Your task to perform on an android device: turn notification dots off Image 0: 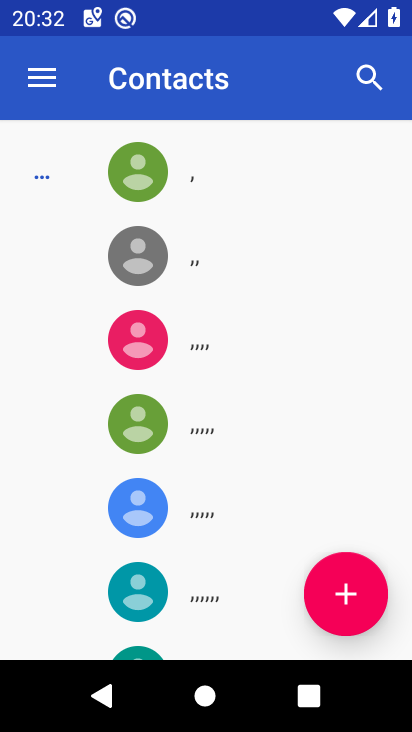
Step 0: press home button
Your task to perform on an android device: turn notification dots off Image 1: 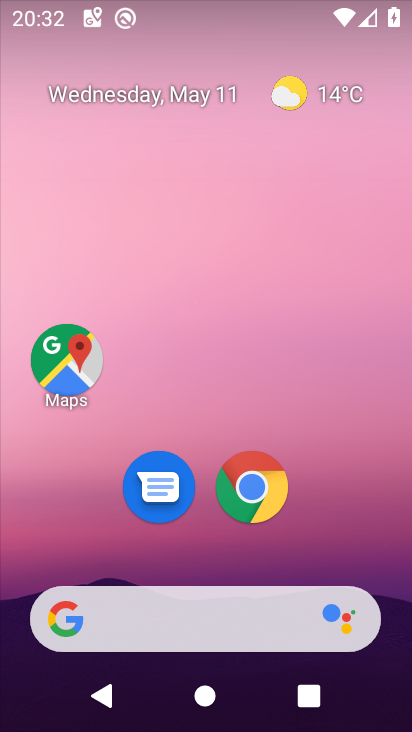
Step 1: drag from (209, 588) to (271, 209)
Your task to perform on an android device: turn notification dots off Image 2: 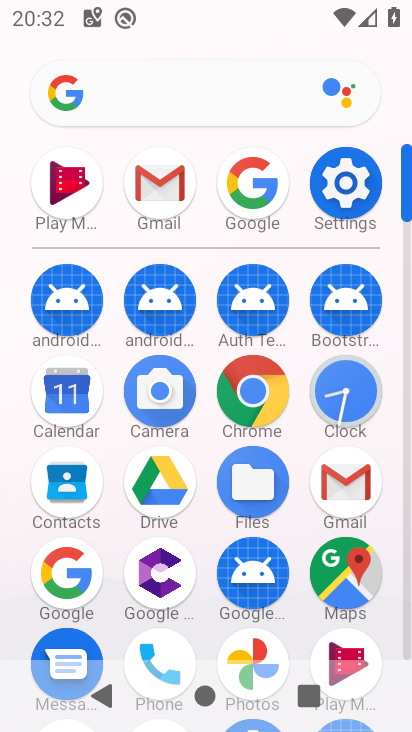
Step 2: click (358, 182)
Your task to perform on an android device: turn notification dots off Image 3: 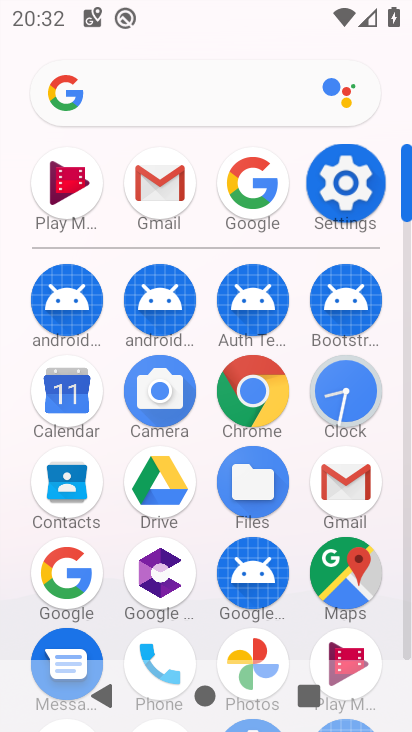
Step 3: click (349, 181)
Your task to perform on an android device: turn notification dots off Image 4: 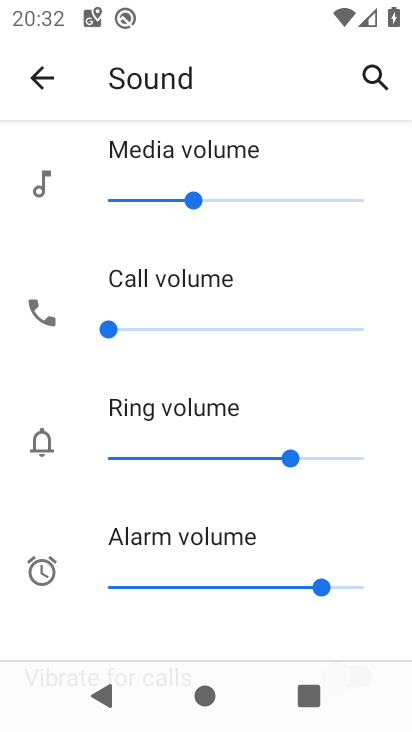
Step 4: press back button
Your task to perform on an android device: turn notification dots off Image 5: 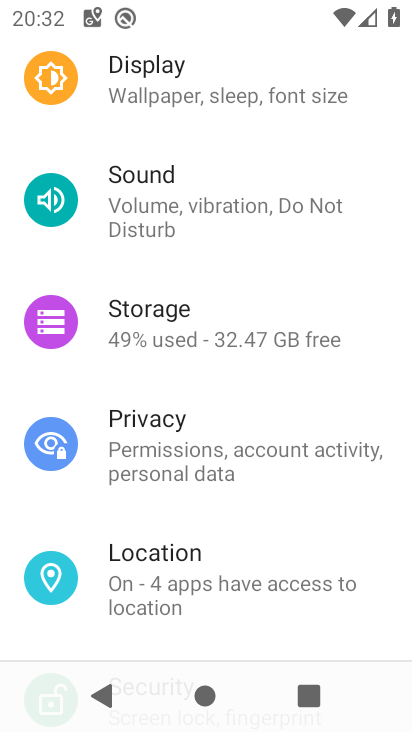
Step 5: drag from (224, 85) to (262, 531)
Your task to perform on an android device: turn notification dots off Image 6: 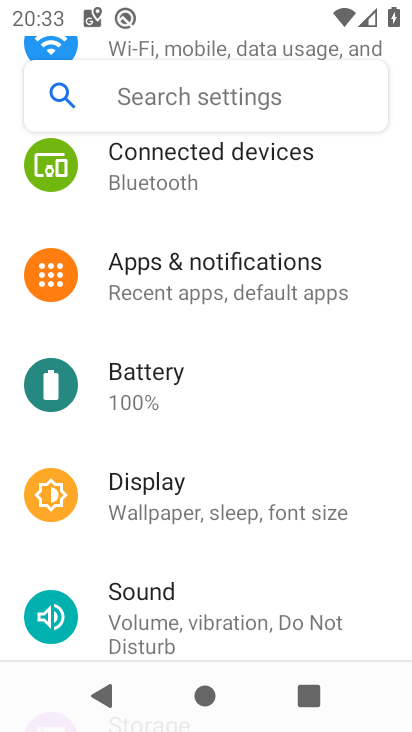
Step 6: click (241, 269)
Your task to perform on an android device: turn notification dots off Image 7: 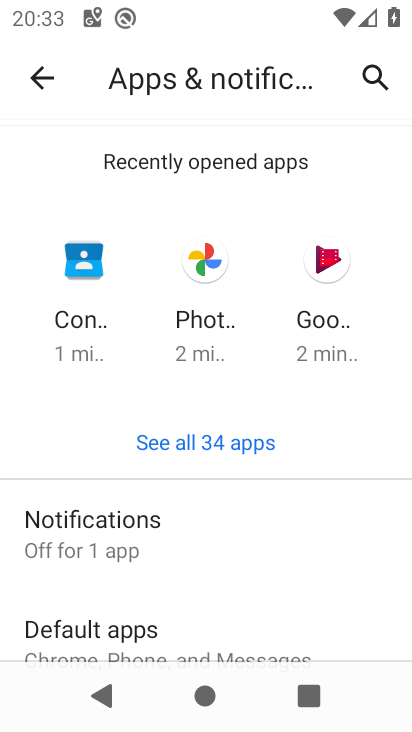
Step 7: click (111, 529)
Your task to perform on an android device: turn notification dots off Image 8: 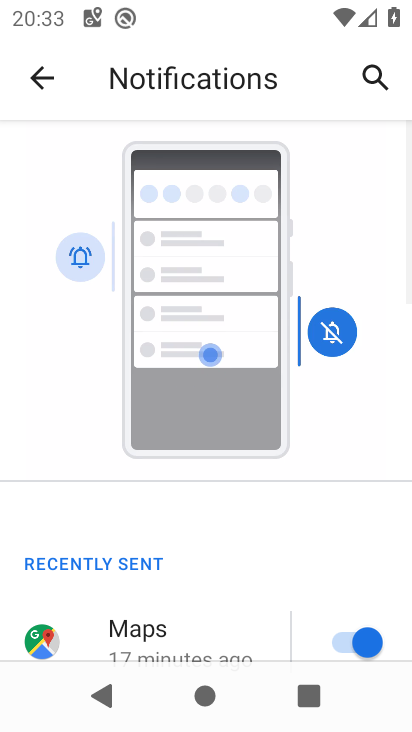
Step 8: drag from (271, 580) to (353, 261)
Your task to perform on an android device: turn notification dots off Image 9: 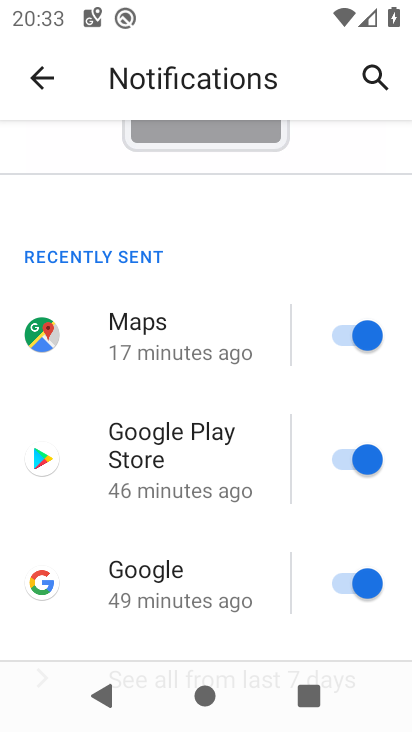
Step 9: drag from (306, 613) to (320, 165)
Your task to perform on an android device: turn notification dots off Image 10: 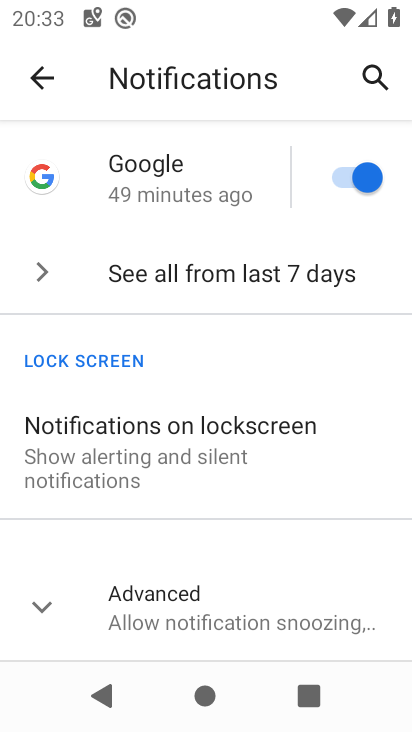
Step 10: click (192, 607)
Your task to perform on an android device: turn notification dots off Image 11: 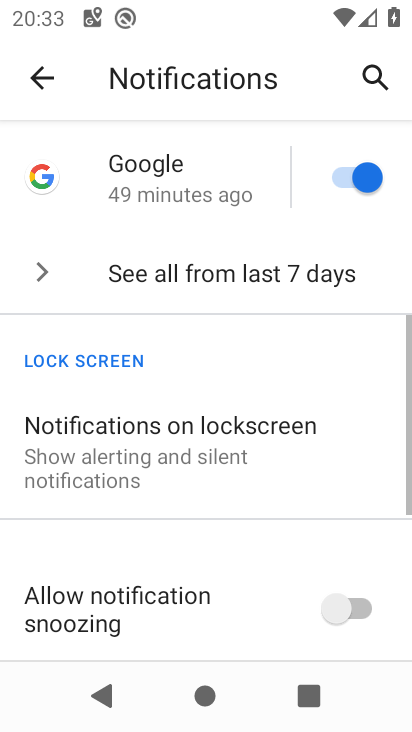
Step 11: click (119, 597)
Your task to perform on an android device: turn notification dots off Image 12: 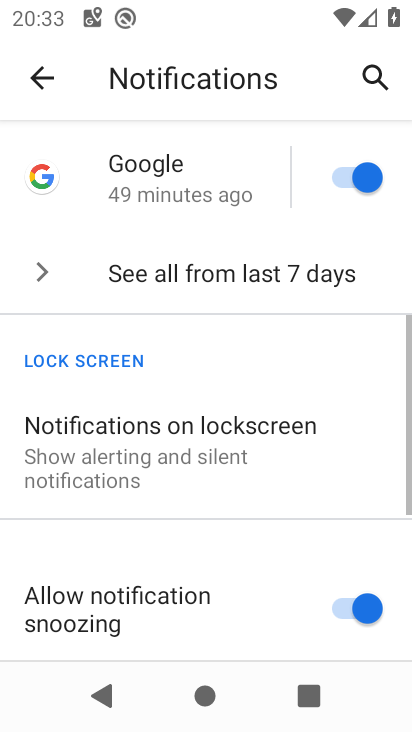
Step 12: drag from (377, 633) to (380, 341)
Your task to perform on an android device: turn notification dots off Image 13: 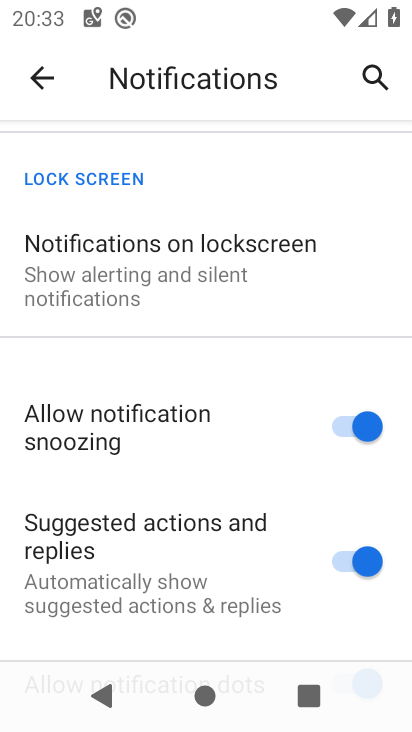
Step 13: drag from (241, 593) to (245, 241)
Your task to perform on an android device: turn notification dots off Image 14: 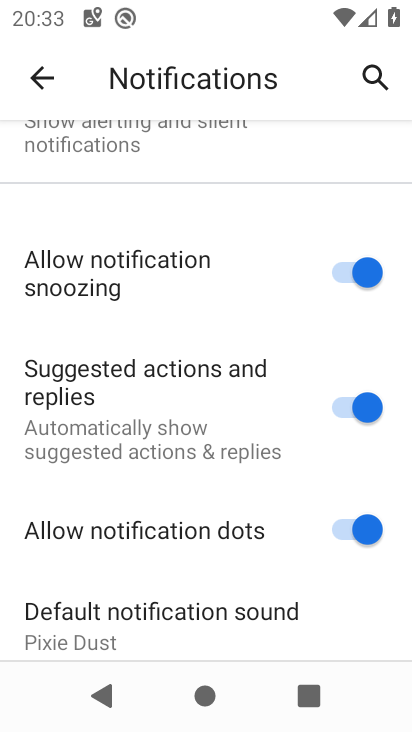
Step 14: drag from (340, 638) to (326, 281)
Your task to perform on an android device: turn notification dots off Image 15: 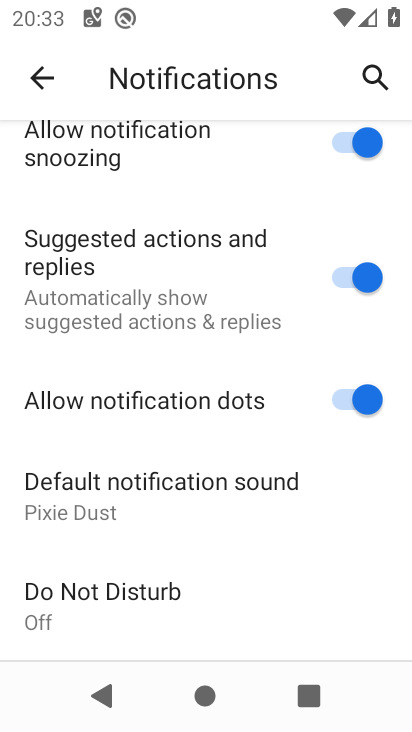
Step 15: click (344, 535)
Your task to perform on an android device: turn notification dots off Image 16: 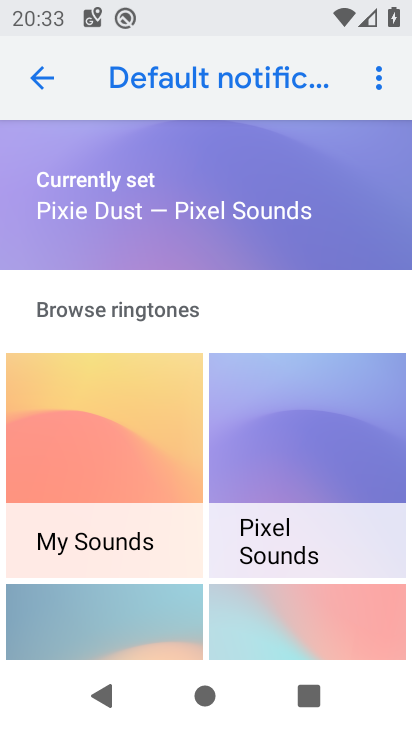
Step 16: click (345, 402)
Your task to perform on an android device: turn notification dots off Image 17: 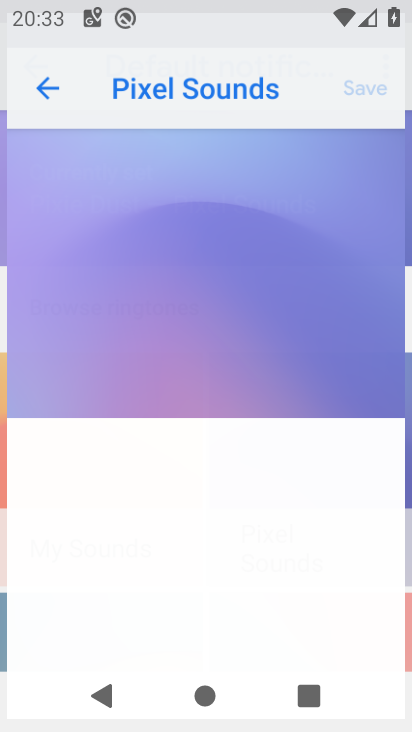
Step 17: press back button
Your task to perform on an android device: turn notification dots off Image 18: 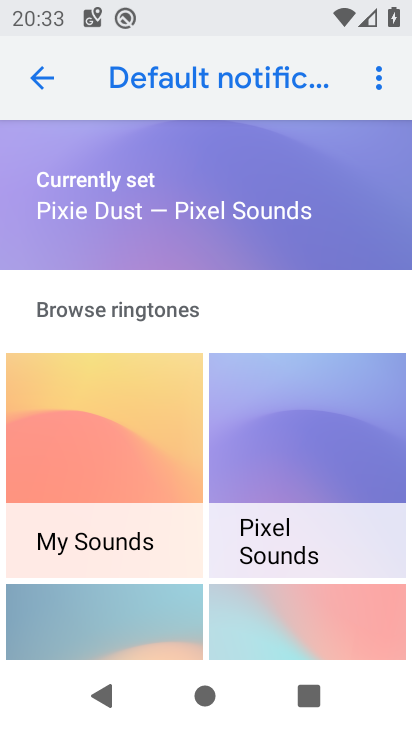
Step 18: click (31, 74)
Your task to perform on an android device: turn notification dots off Image 19: 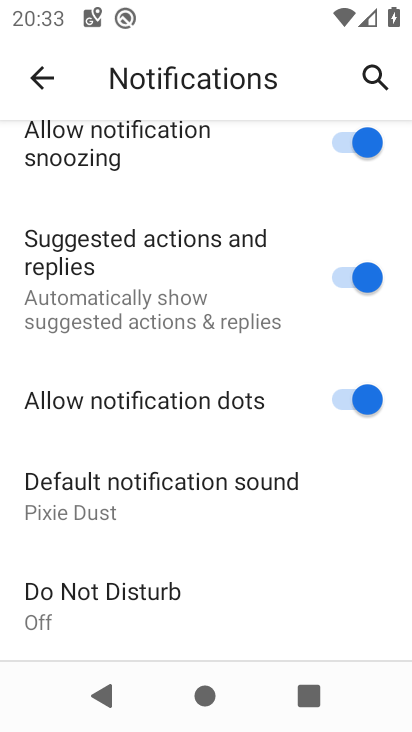
Step 19: click (338, 398)
Your task to perform on an android device: turn notification dots off Image 20: 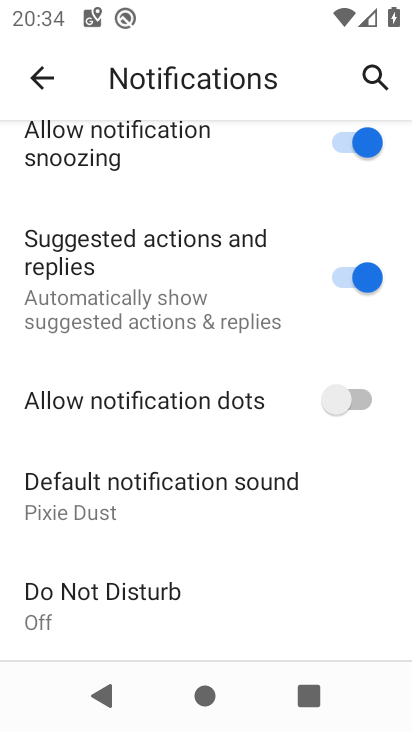
Step 20: task complete